Your task to perform on an android device: see creations saved in the google photos Image 0: 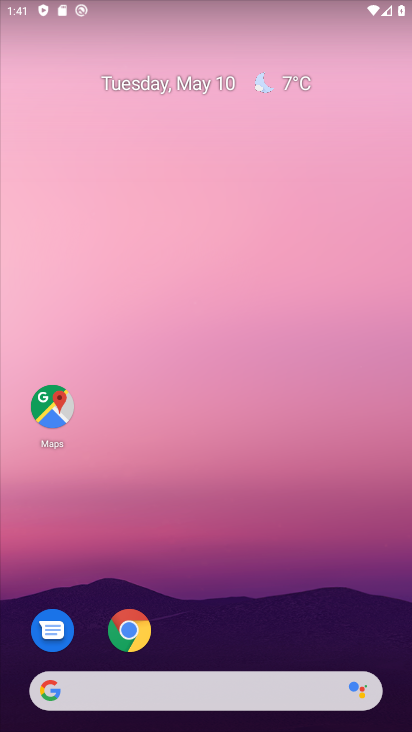
Step 0: drag from (261, 526) to (236, 1)
Your task to perform on an android device: see creations saved in the google photos Image 1: 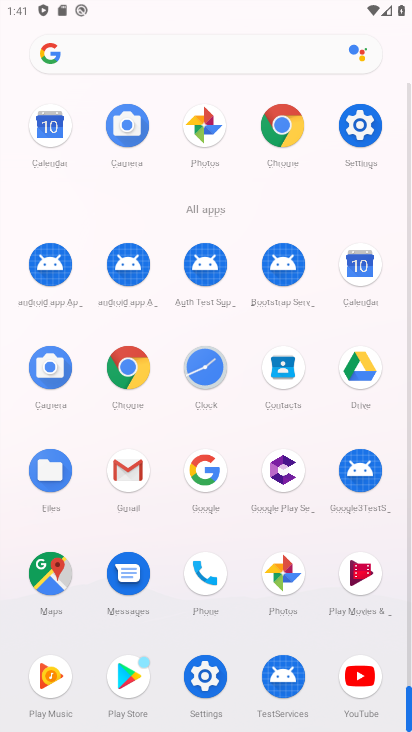
Step 1: drag from (9, 588) to (8, 300)
Your task to perform on an android device: see creations saved in the google photos Image 2: 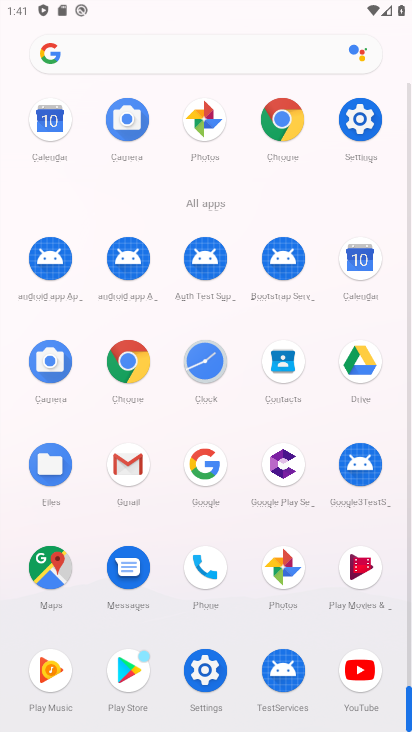
Step 2: click (282, 565)
Your task to perform on an android device: see creations saved in the google photos Image 3: 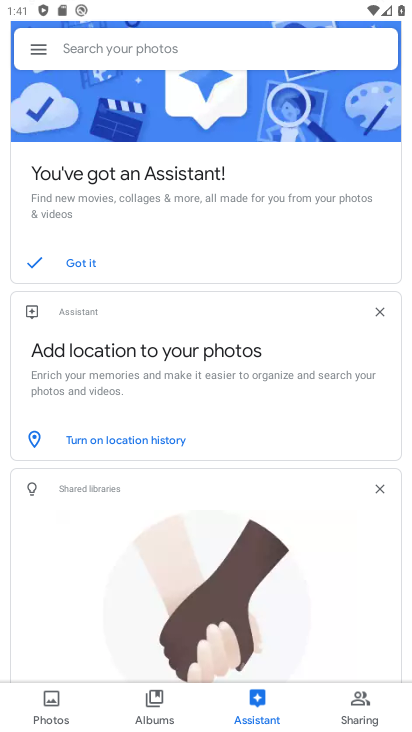
Step 3: click (49, 706)
Your task to perform on an android device: see creations saved in the google photos Image 4: 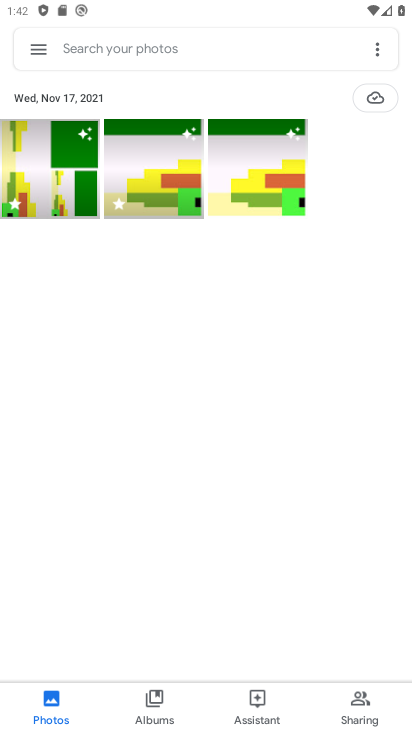
Step 4: task complete